Your task to perform on an android device: see creations saved in the google photos Image 0: 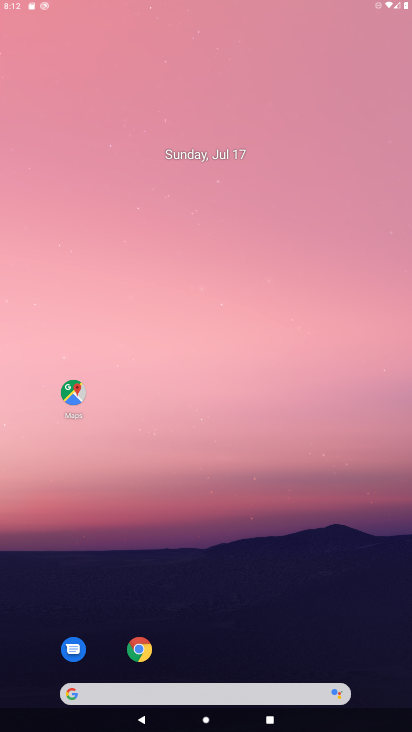
Step 0: press home button
Your task to perform on an android device: see creations saved in the google photos Image 1: 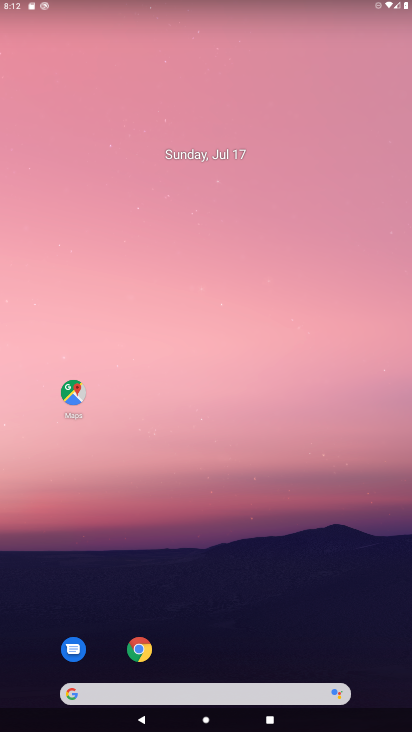
Step 1: drag from (235, 665) to (112, 186)
Your task to perform on an android device: see creations saved in the google photos Image 2: 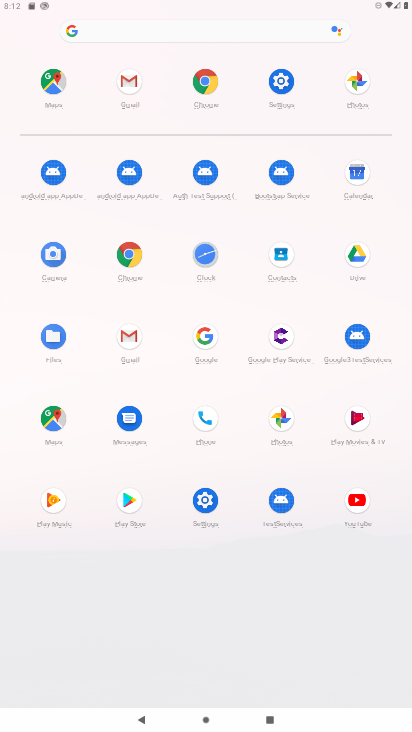
Step 2: click (276, 422)
Your task to perform on an android device: see creations saved in the google photos Image 3: 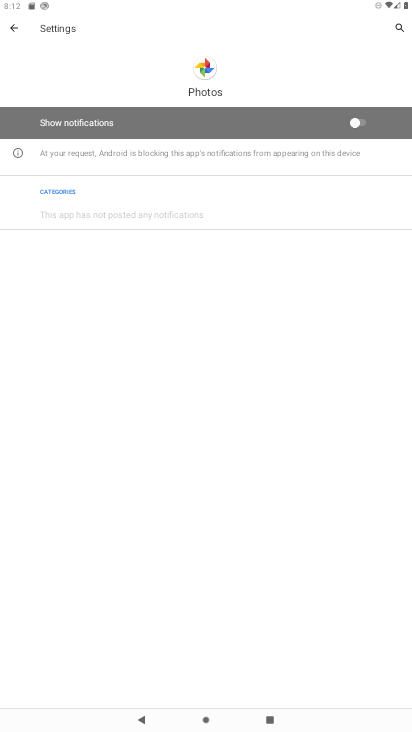
Step 3: click (18, 21)
Your task to perform on an android device: see creations saved in the google photos Image 4: 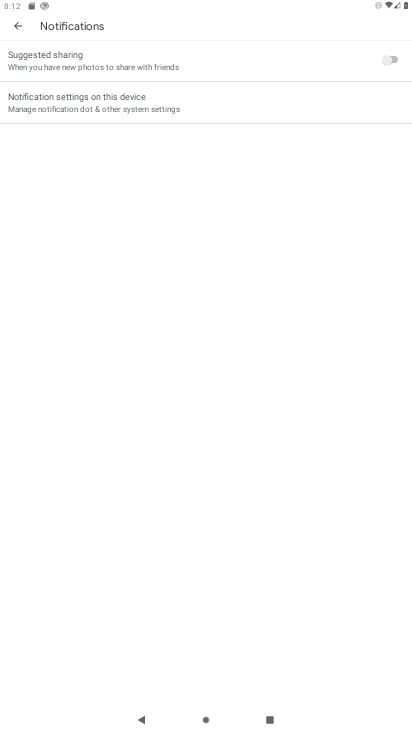
Step 4: click (21, 30)
Your task to perform on an android device: see creations saved in the google photos Image 5: 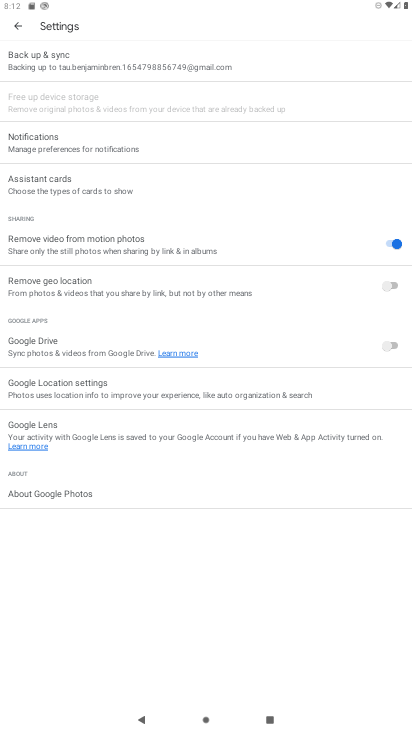
Step 5: click (20, 26)
Your task to perform on an android device: see creations saved in the google photos Image 6: 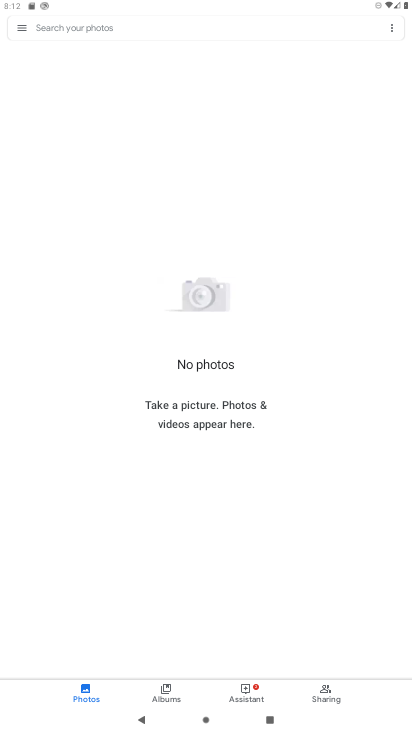
Step 6: click (87, 691)
Your task to perform on an android device: see creations saved in the google photos Image 7: 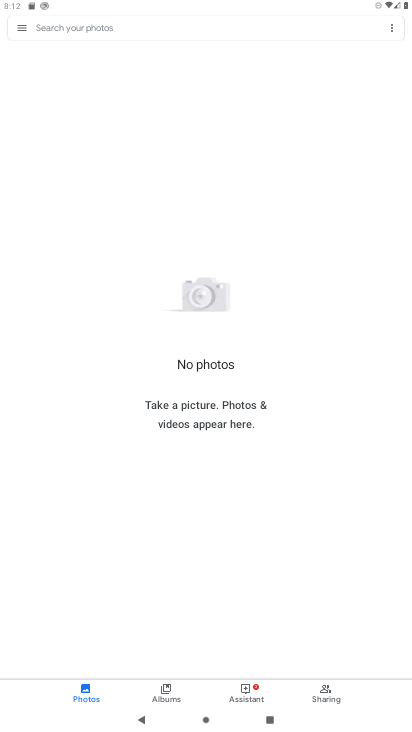
Step 7: click (98, 32)
Your task to perform on an android device: see creations saved in the google photos Image 8: 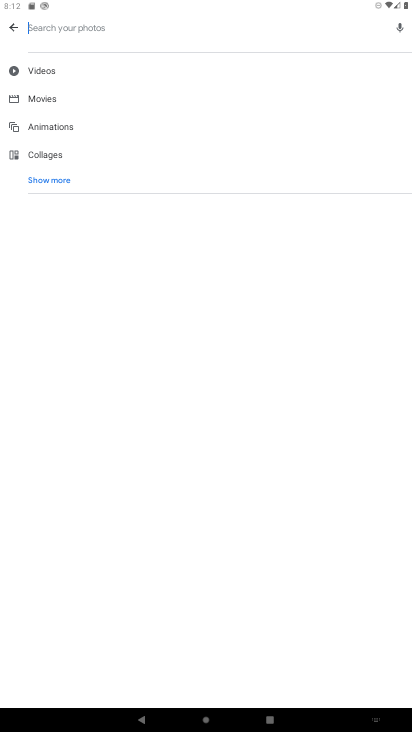
Step 8: click (45, 175)
Your task to perform on an android device: see creations saved in the google photos Image 9: 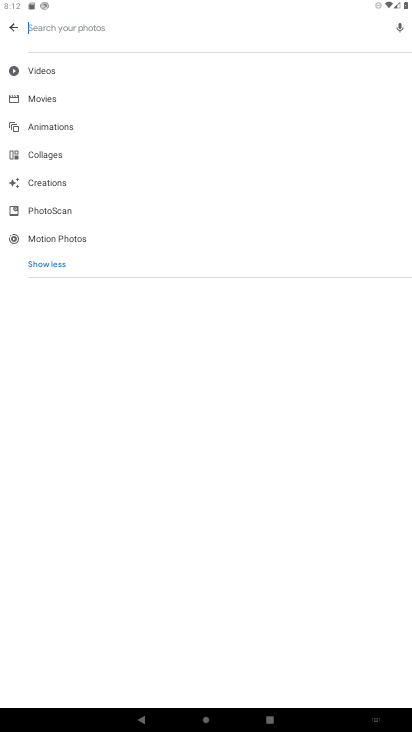
Step 9: click (45, 183)
Your task to perform on an android device: see creations saved in the google photos Image 10: 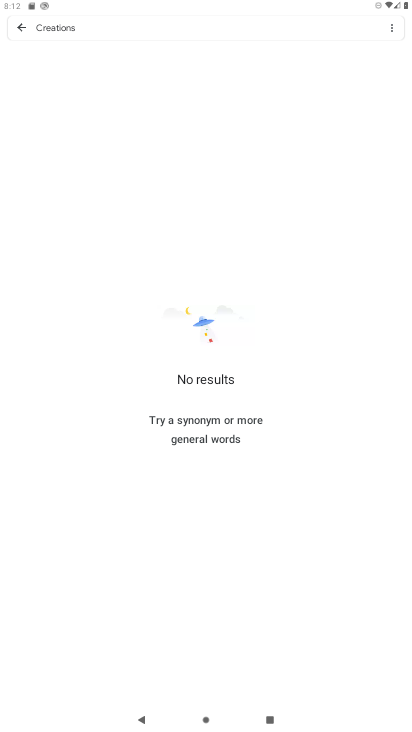
Step 10: task complete